Your task to perform on an android device: turn on bluetooth scan Image 0: 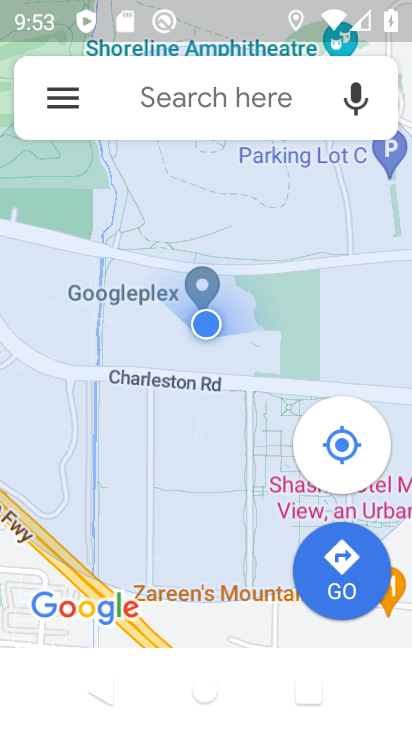
Step 0: press back button
Your task to perform on an android device: turn on bluetooth scan Image 1: 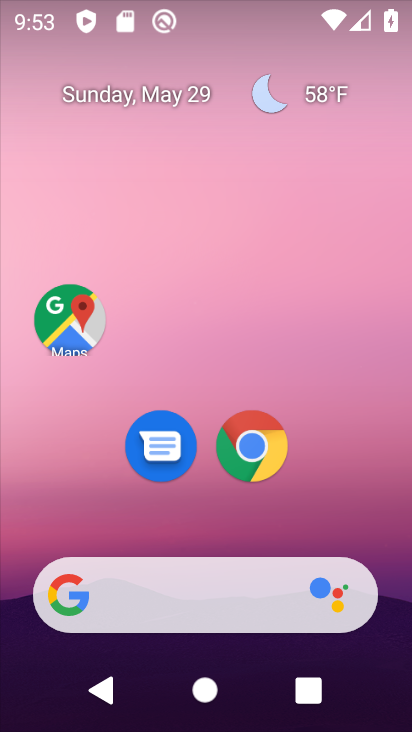
Step 1: drag from (339, 519) to (195, 50)
Your task to perform on an android device: turn on bluetooth scan Image 2: 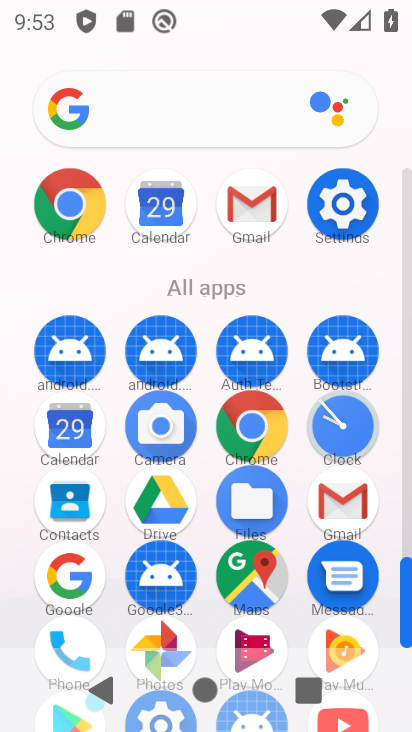
Step 2: click (344, 199)
Your task to perform on an android device: turn on bluetooth scan Image 3: 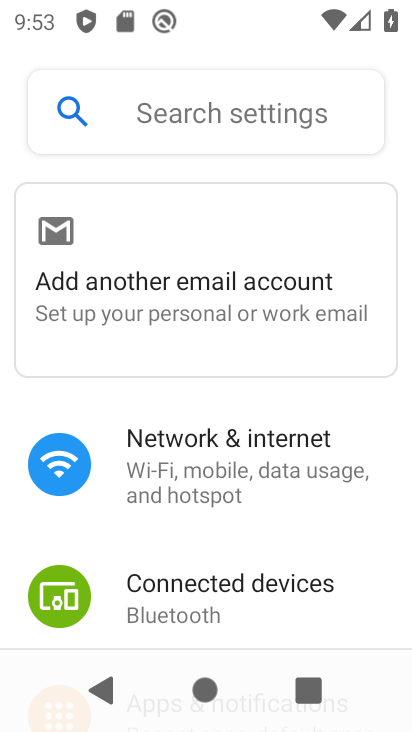
Step 3: drag from (273, 443) to (263, 117)
Your task to perform on an android device: turn on bluetooth scan Image 4: 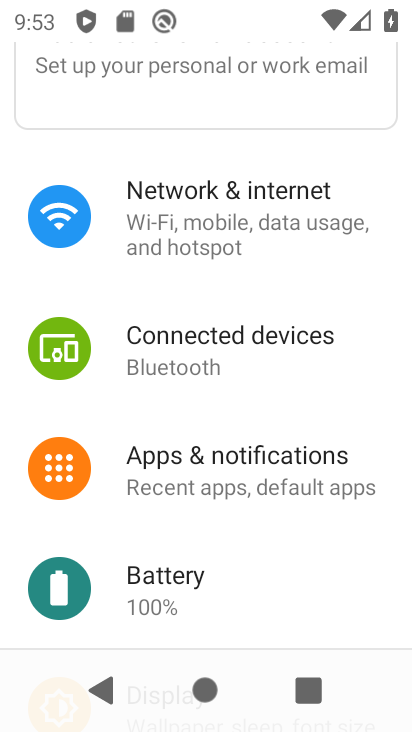
Step 4: drag from (267, 223) to (281, 115)
Your task to perform on an android device: turn on bluetooth scan Image 5: 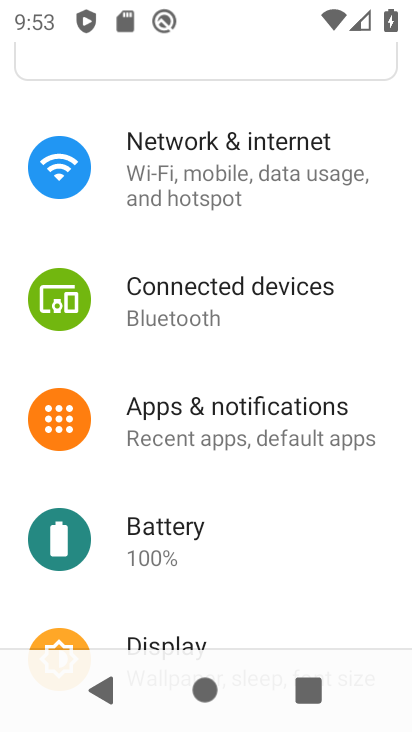
Step 5: drag from (251, 605) to (253, 199)
Your task to perform on an android device: turn on bluetooth scan Image 6: 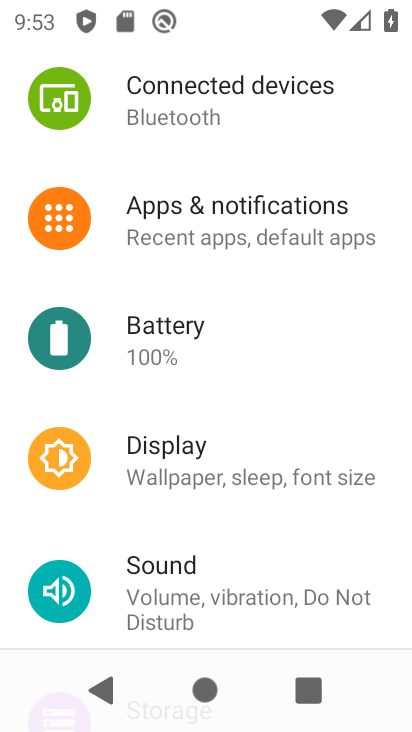
Step 6: drag from (280, 565) to (283, 197)
Your task to perform on an android device: turn on bluetooth scan Image 7: 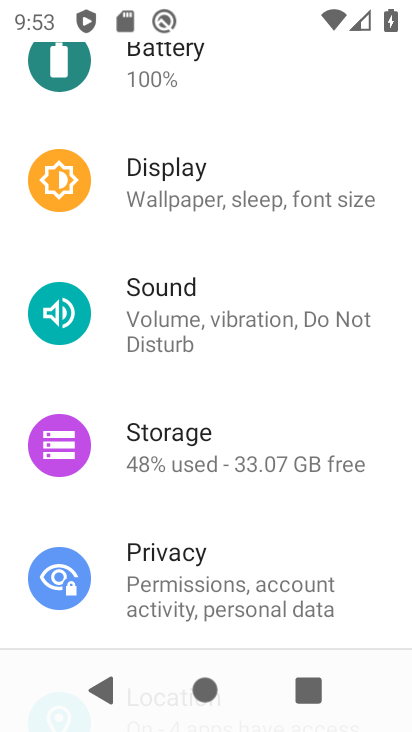
Step 7: drag from (259, 433) to (266, 168)
Your task to perform on an android device: turn on bluetooth scan Image 8: 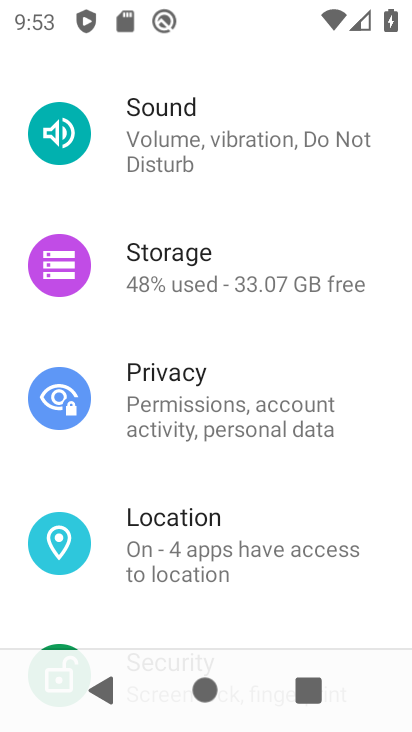
Step 8: click (196, 543)
Your task to perform on an android device: turn on bluetooth scan Image 9: 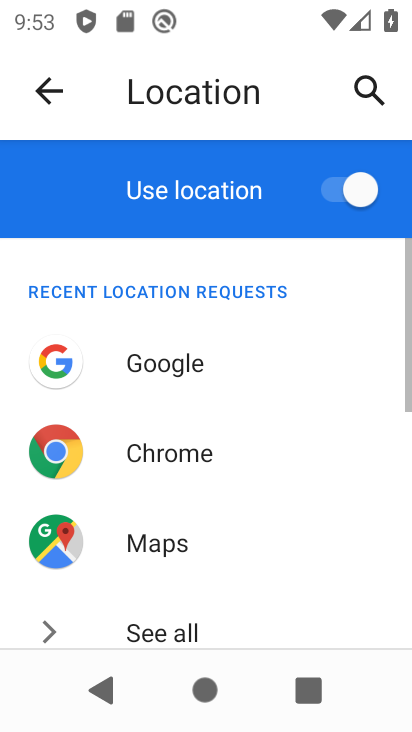
Step 9: drag from (357, 608) to (247, 145)
Your task to perform on an android device: turn on bluetooth scan Image 10: 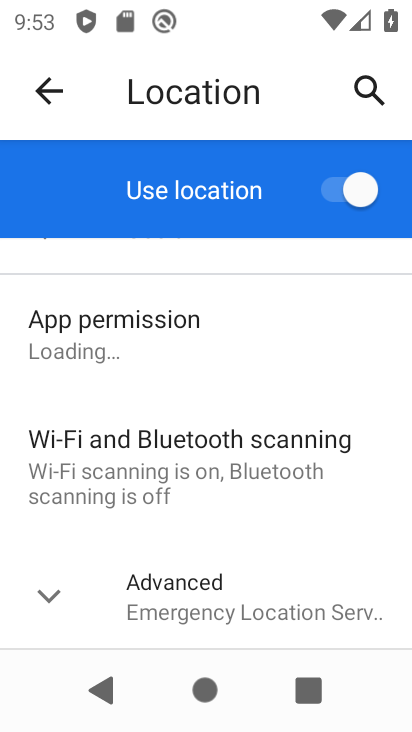
Step 10: drag from (237, 567) to (226, 381)
Your task to perform on an android device: turn on bluetooth scan Image 11: 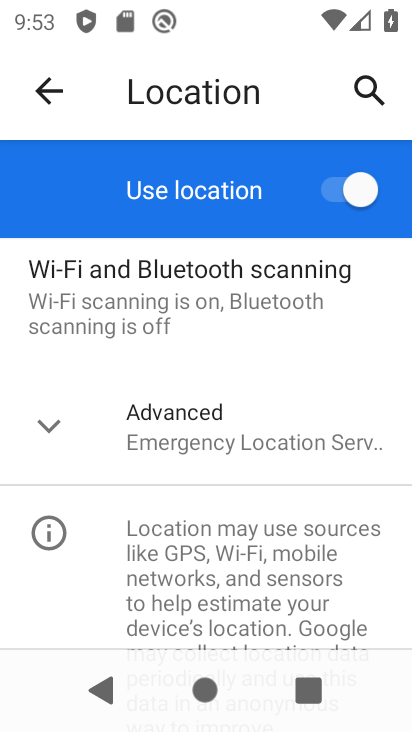
Step 11: click (167, 326)
Your task to perform on an android device: turn on bluetooth scan Image 12: 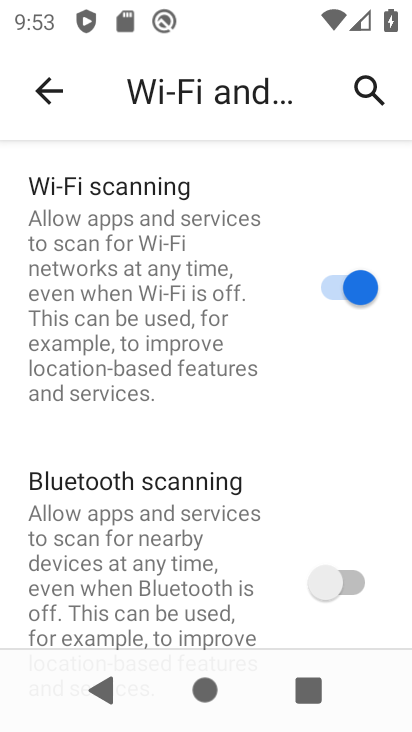
Step 12: click (334, 593)
Your task to perform on an android device: turn on bluetooth scan Image 13: 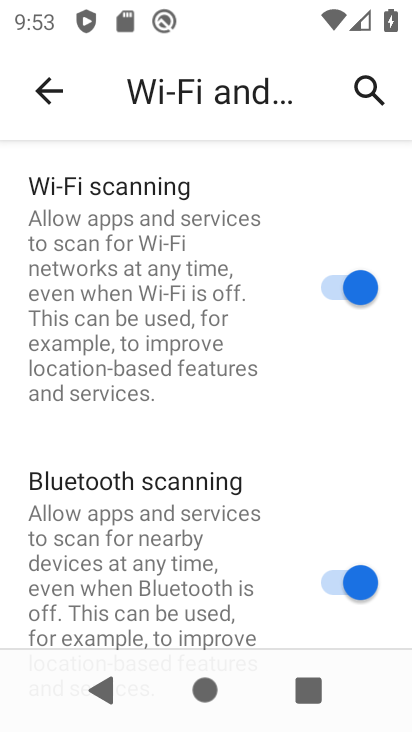
Step 13: task complete